Your task to perform on an android device: toggle translation in the chrome app Image 0: 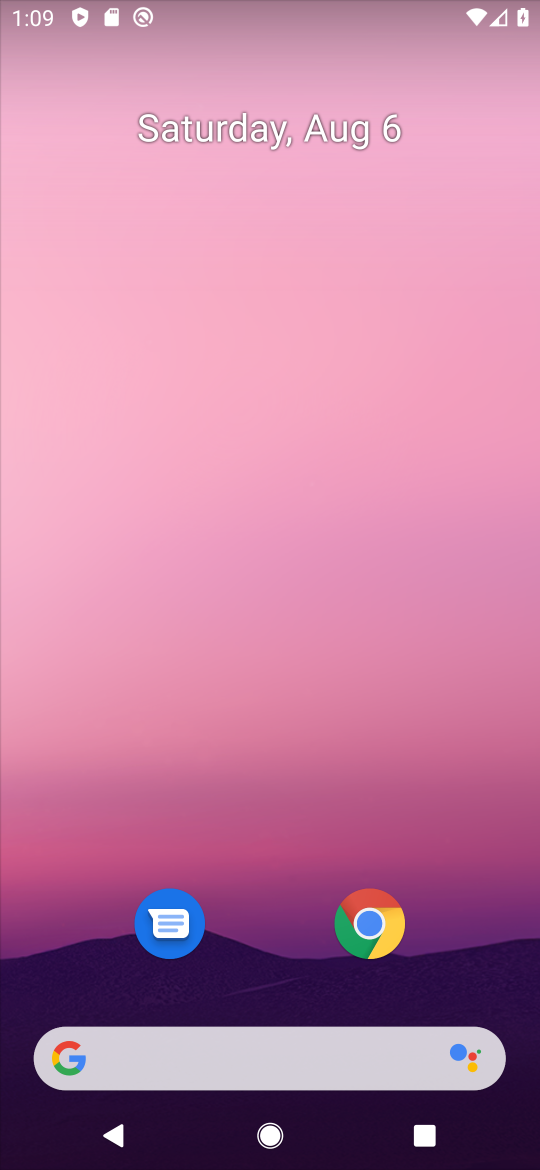
Step 0: click (423, 229)
Your task to perform on an android device: toggle translation in the chrome app Image 1: 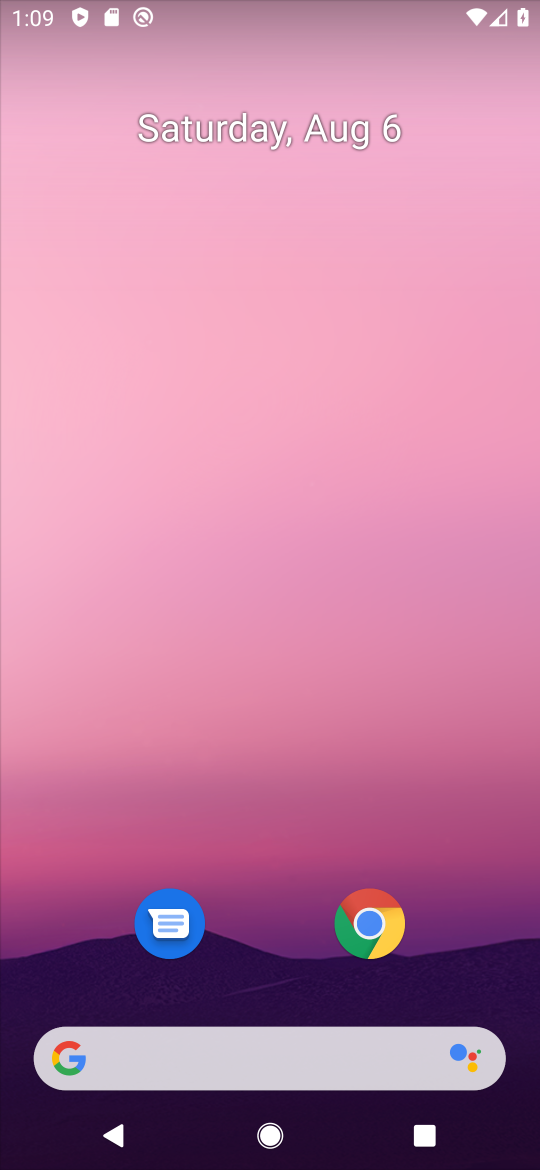
Step 1: drag from (257, 853) to (305, 265)
Your task to perform on an android device: toggle translation in the chrome app Image 2: 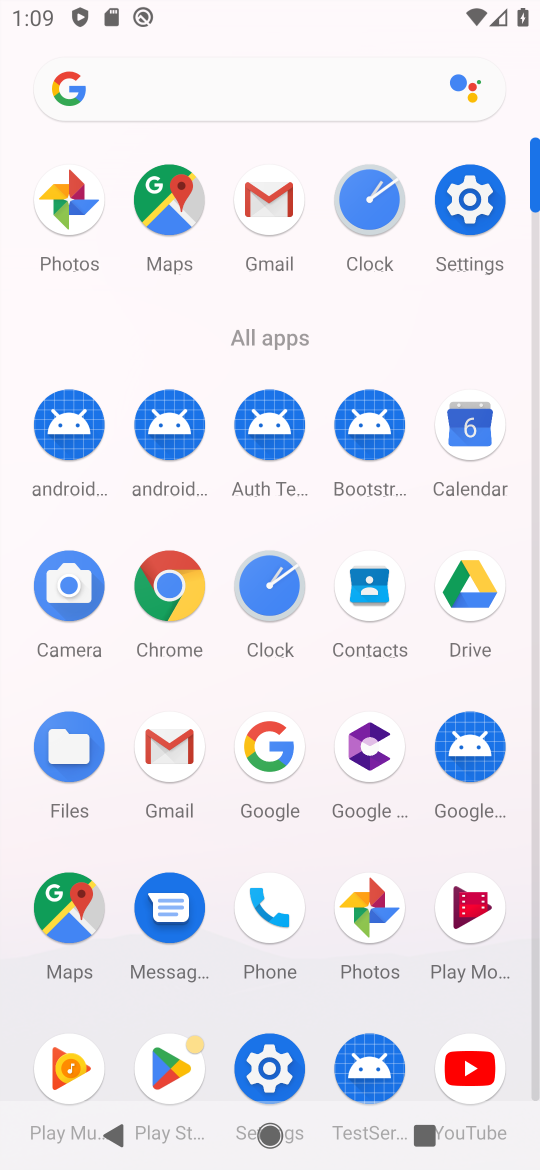
Step 2: click (178, 584)
Your task to perform on an android device: toggle translation in the chrome app Image 3: 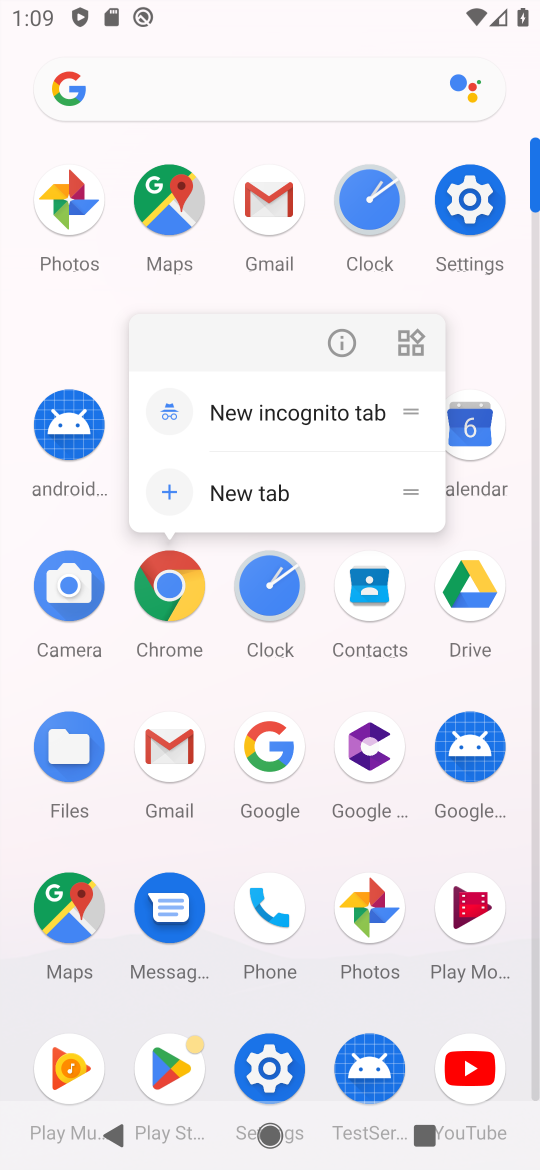
Step 3: click (352, 347)
Your task to perform on an android device: toggle translation in the chrome app Image 4: 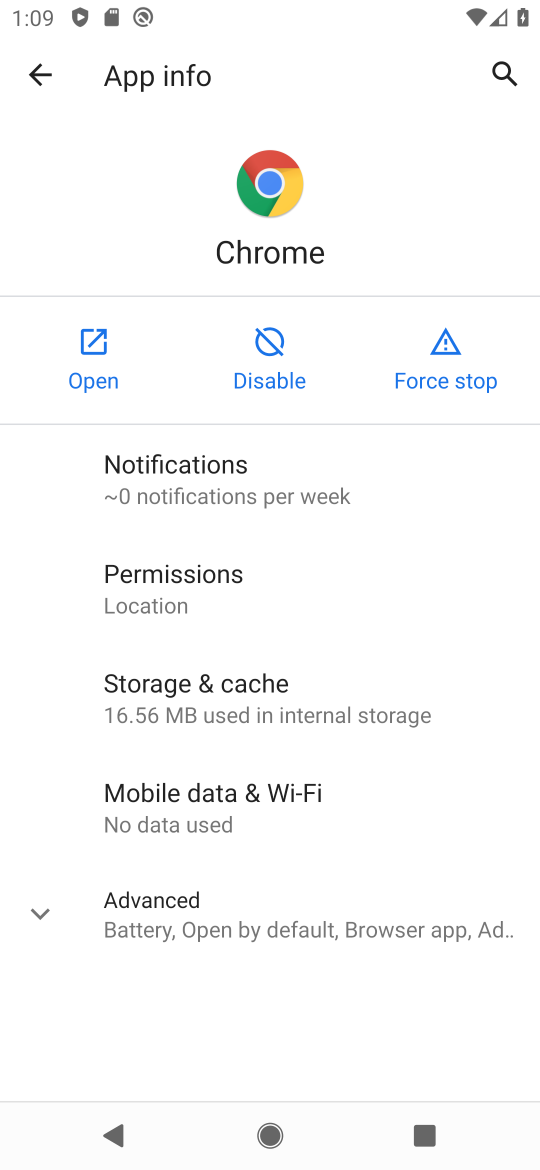
Step 4: click (104, 339)
Your task to perform on an android device: toggle translation in the chrome app Image 5: 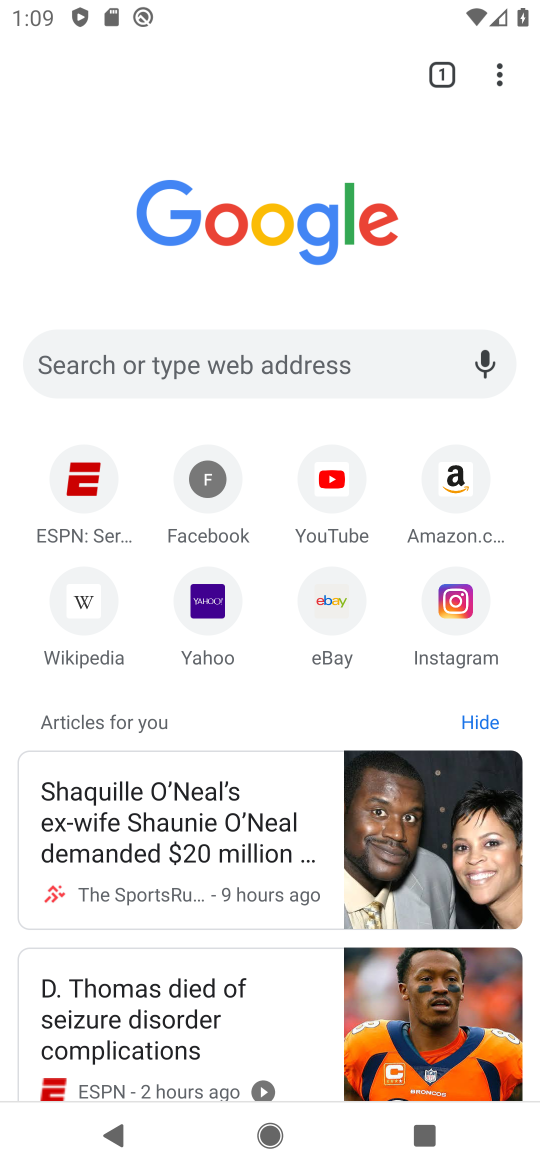
Step 5: drag from (508, 64) to (267, 707)
Your task to perform on an android device: toggle translation in the chrome app Image 6: 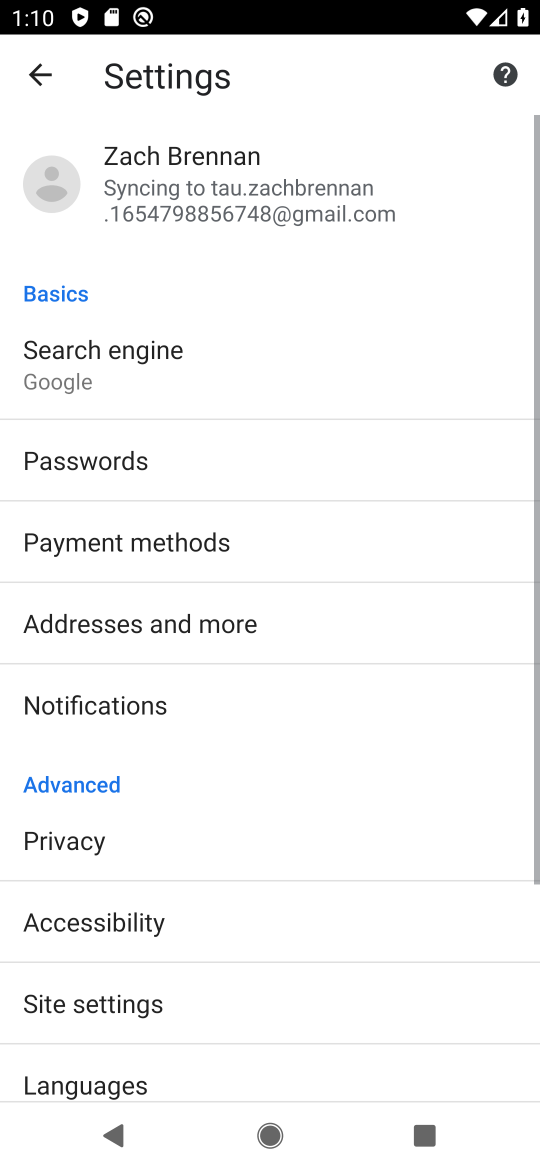
Step 6: drag from (301, 745) to (451, 95)
Your task to perform on an android device: toggle translation in the chrome app Image 7: 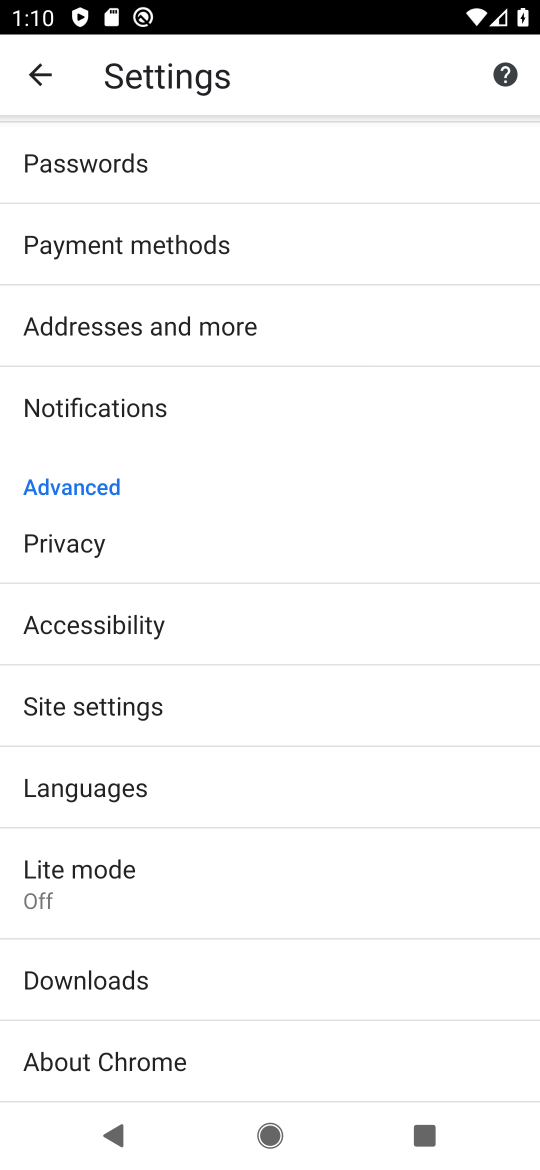
Step 7: drag from (229, 674) to (229, 475)
Your task to perform on an android device: toggle translation in the chrome app Image 8: 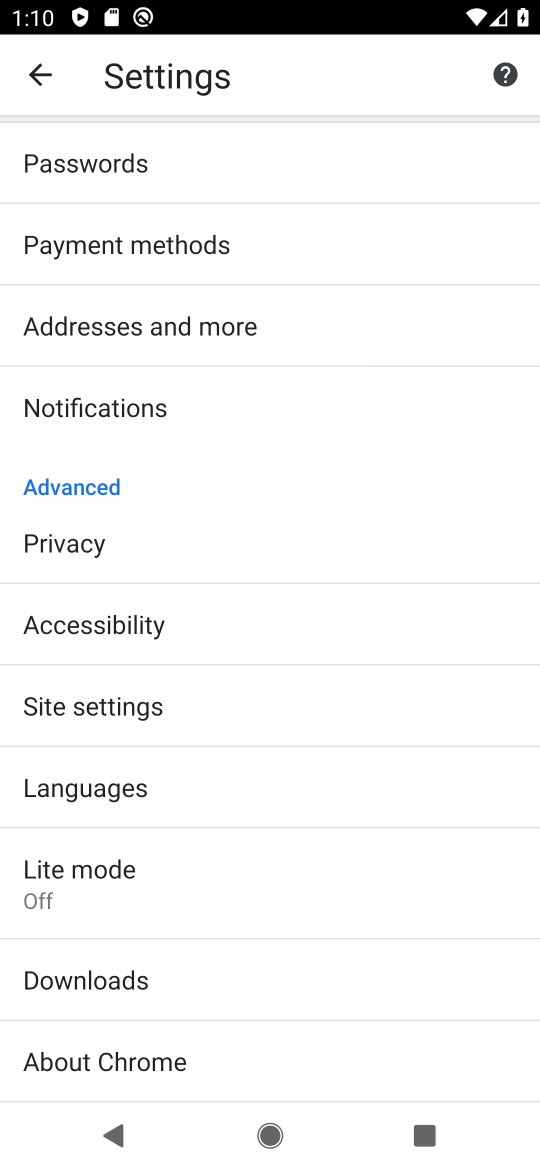
Step 8: drag from (284, 1021) to (286, 575)
Your task to perform on an android device: toggle translation in the chrome app Image 9: 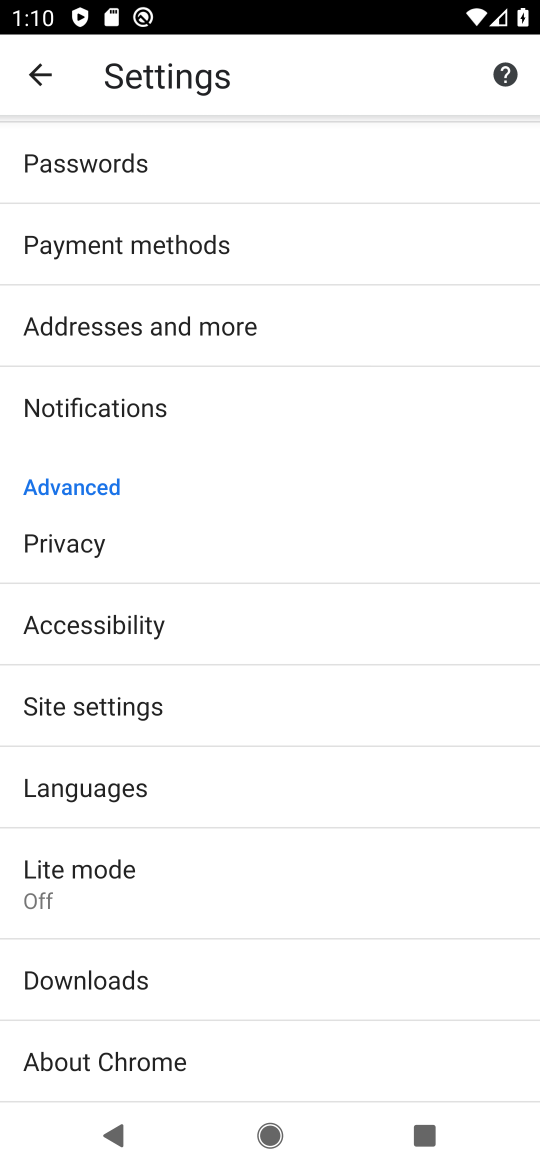
Step 9: click (123, 788)
Your task to perform on an android device: toggle translation in the chrome app Image 10: 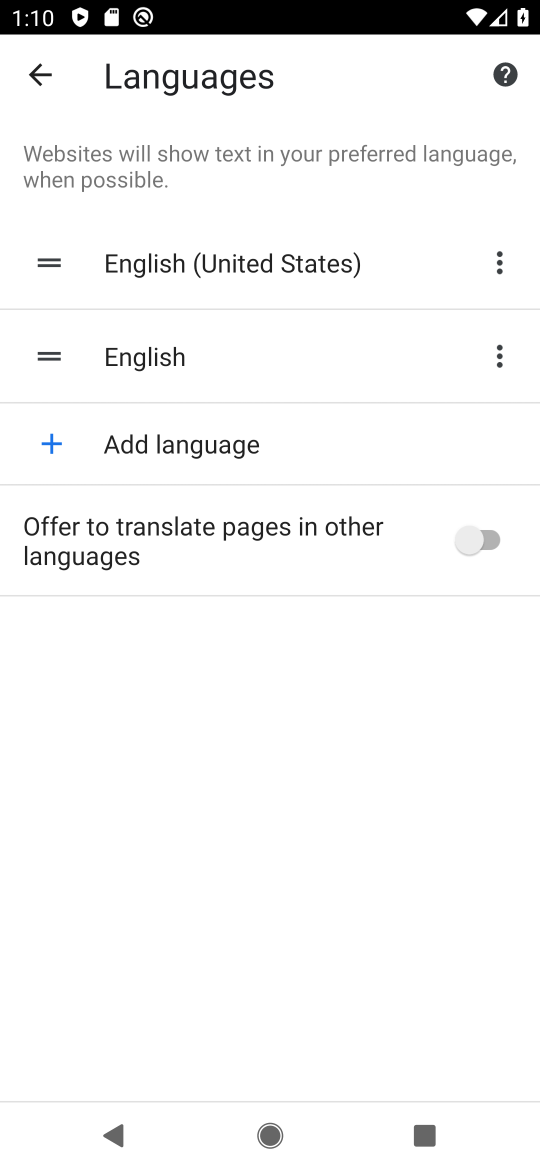
Step 10: click (367, 540)
Your task to perform on an android device: toggle translation in the chrome app Image 11: 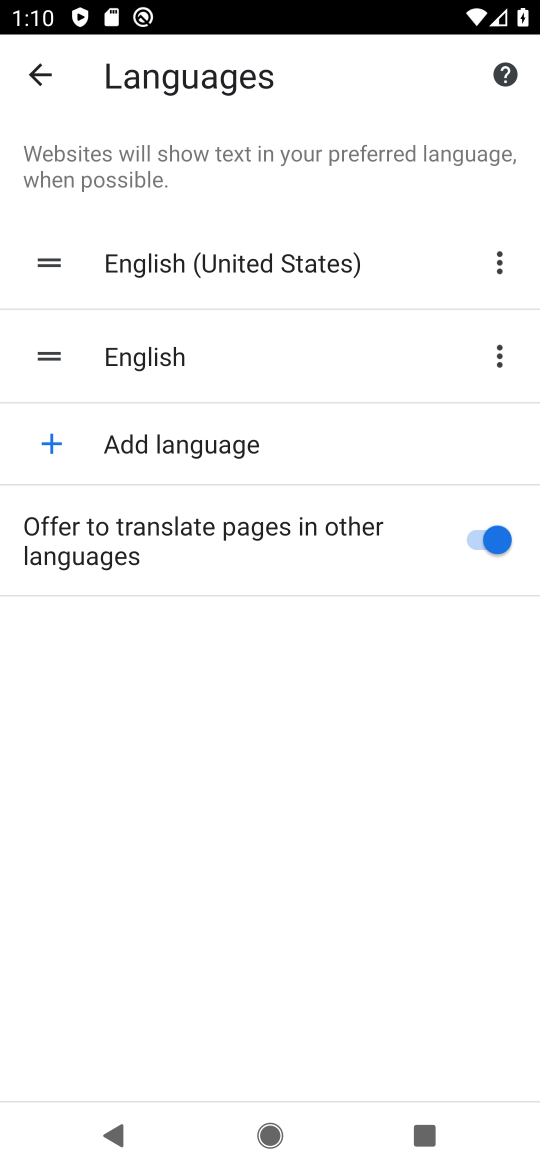
Step 11: task complete